Your task to perform on an android device: Turn off the flashlight Image 0: 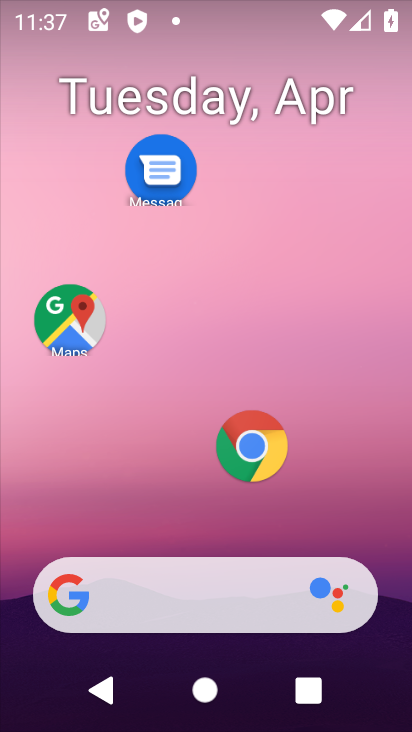
Step 0: drag from (281, 490) to (334, 7)
Your task to perform on an android device: Turn off the flashlight Image 1: 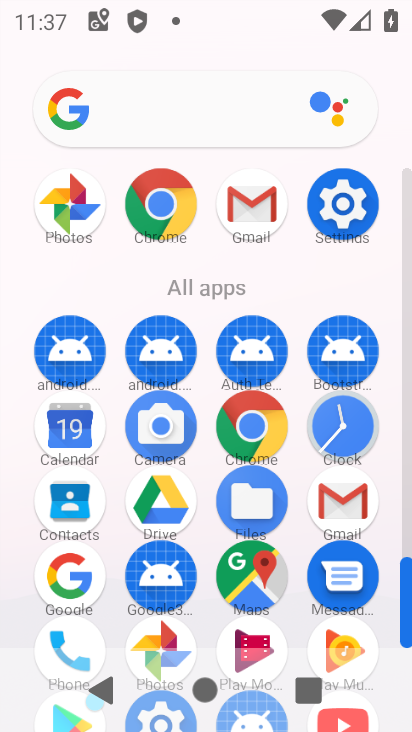
Step 1: task complete